Your task to perform on an android device: What's the news in Jamaica? Image 0: 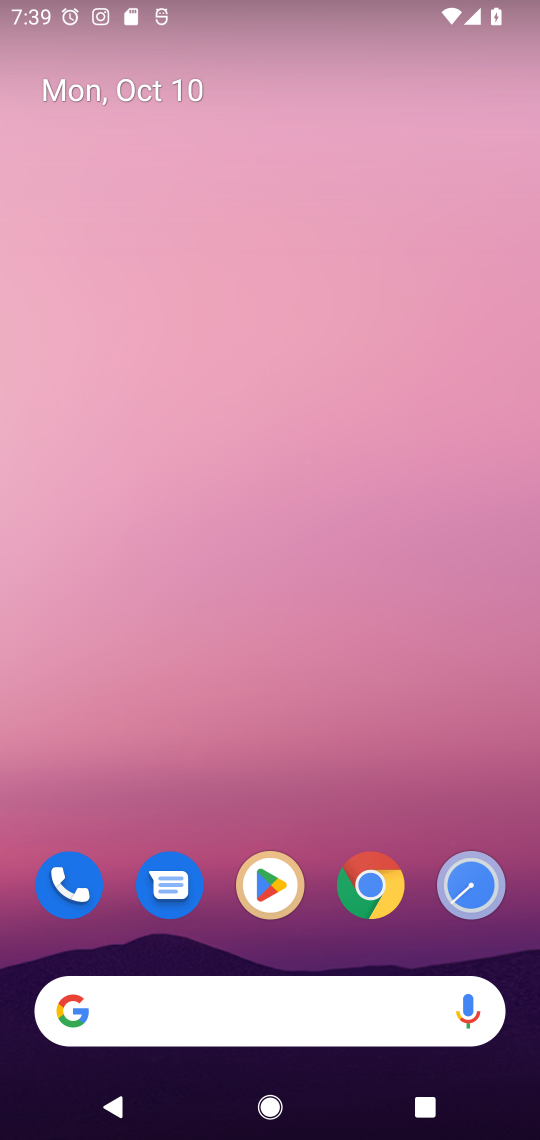
Step 0: click (381, 893)
Your task to perform on an android device: What's the news in Jamaica? Image 1: 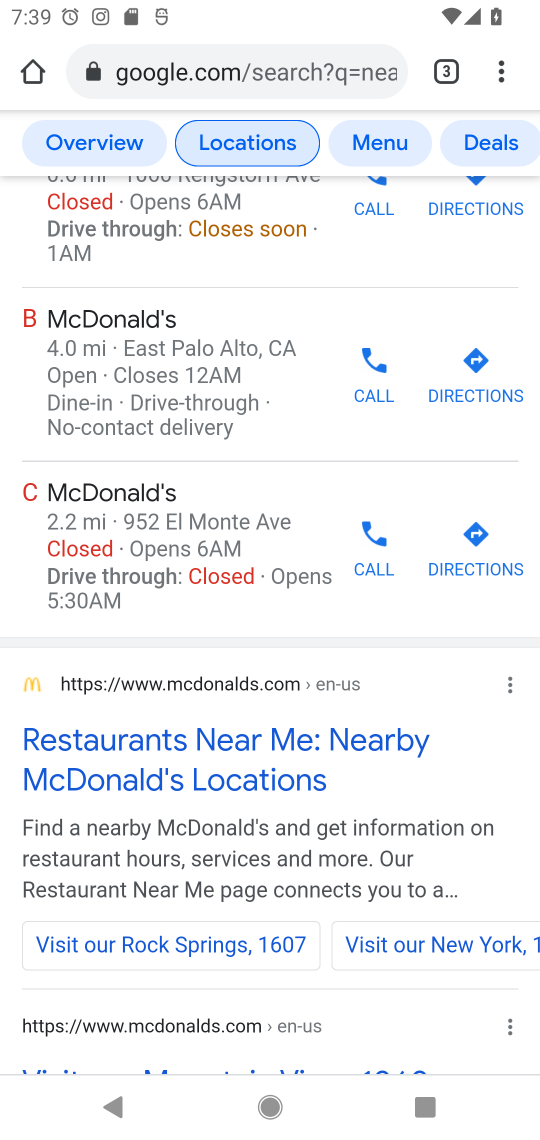
Step 1: click (253, 75)
Your task to perform on an android device: What's the news in Jamaica? Image 2: 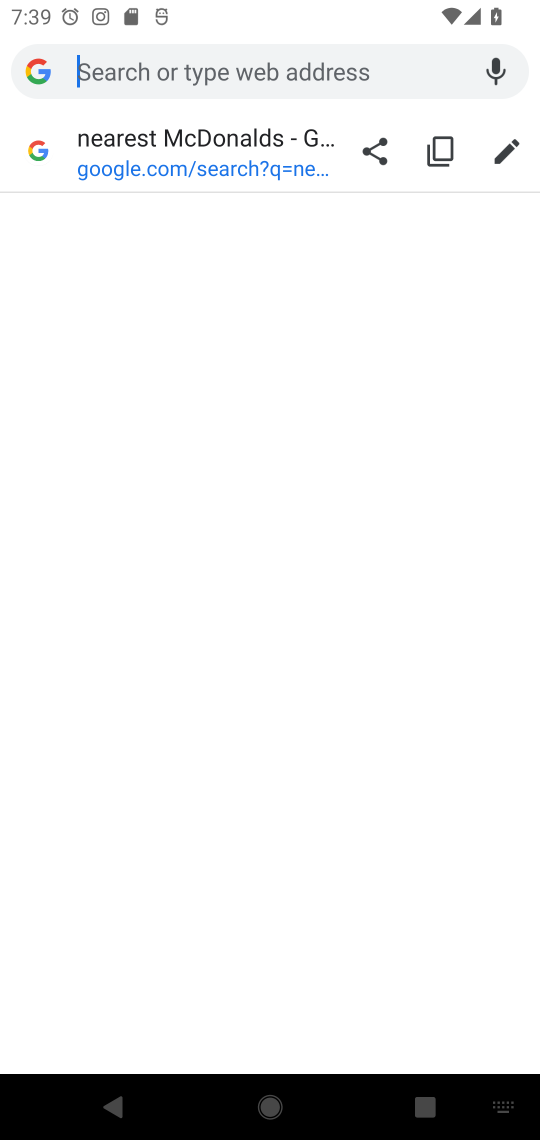
Step 2: type "Jamaica"
Your task to perform on an android device: What's the news in Jamaica? Image 3: 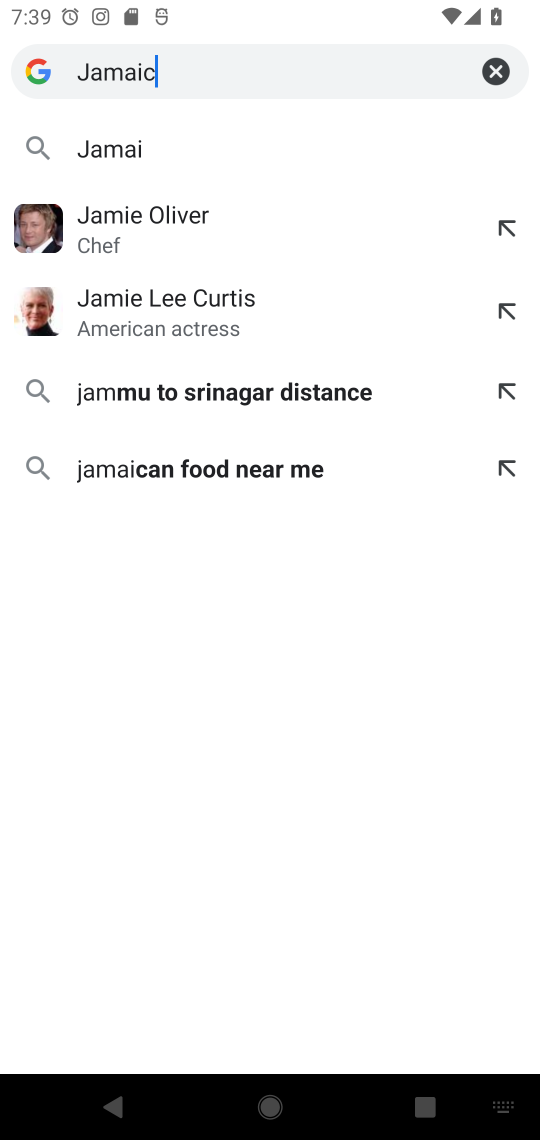
Step 3: type ""
Your task to perform on an android device: What's the news in Jamaica? Image 4: 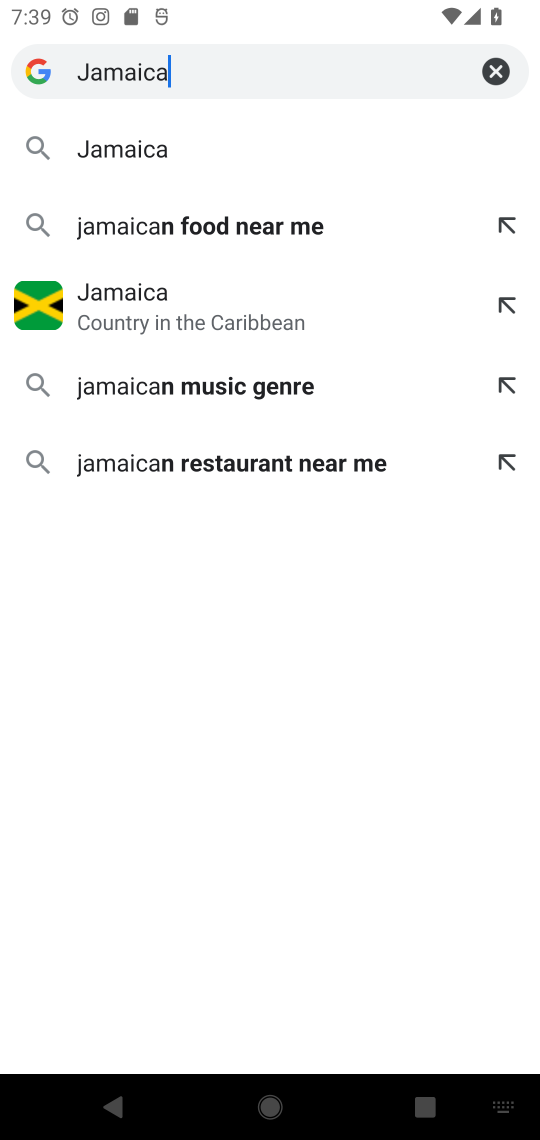
Step 4: click (138, 147)
Your task to perform on an android device: What's the news in Jamaica? Image 5: 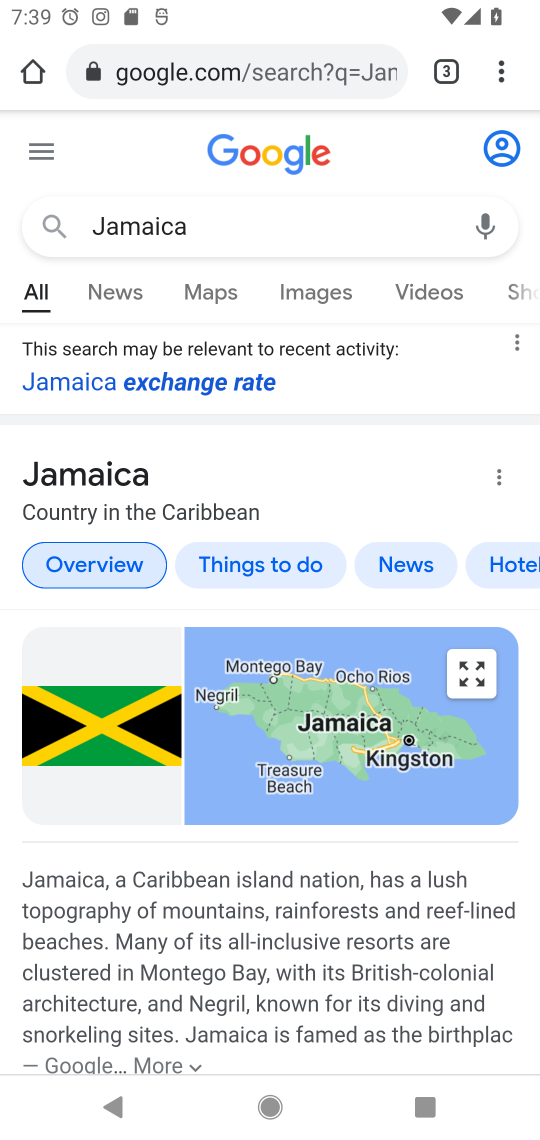
Step 5: click (418, 566)
Your task to perform on an android device: What's the news in Jamaica? Image 6: 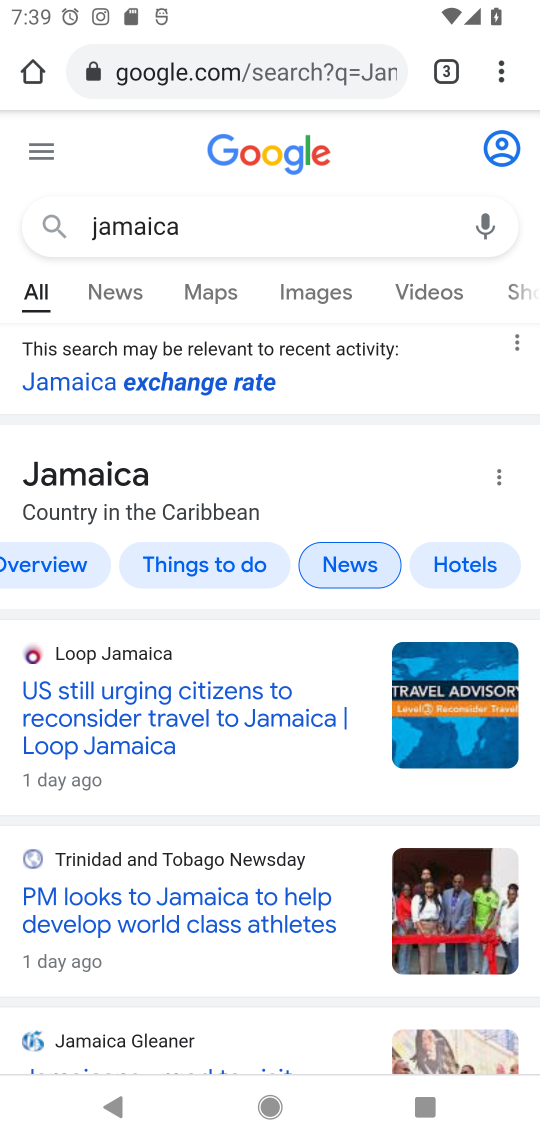
Step 6: drag from (197, 769) to (139, 289)
Your task to perform on an android device: What's the news in Jamaica? Image 7: 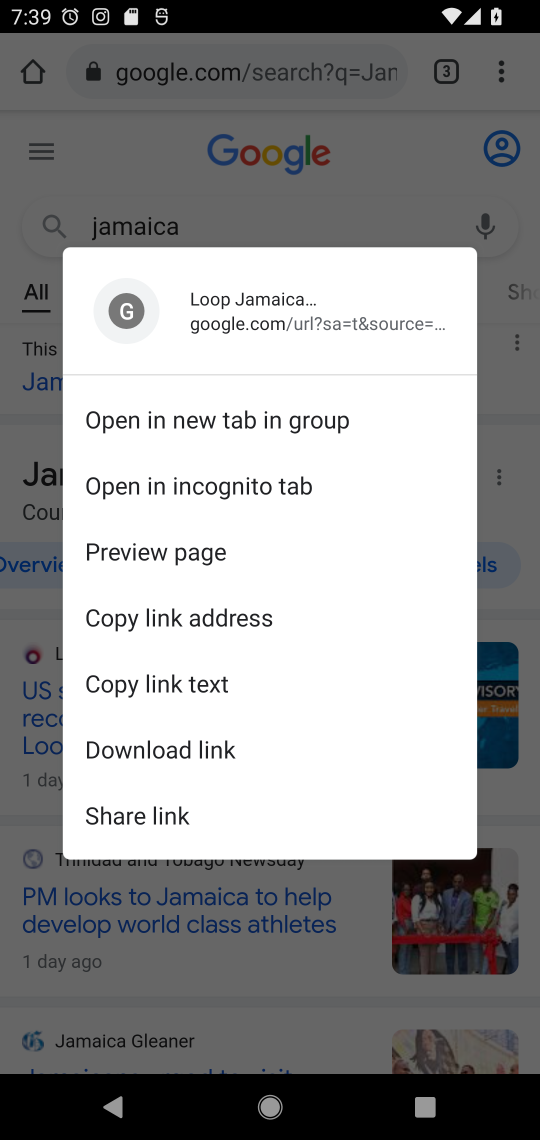
Step 7: click (220, 191)
Your task to perform on an android device: What's the news in Jamaica? Image 8: 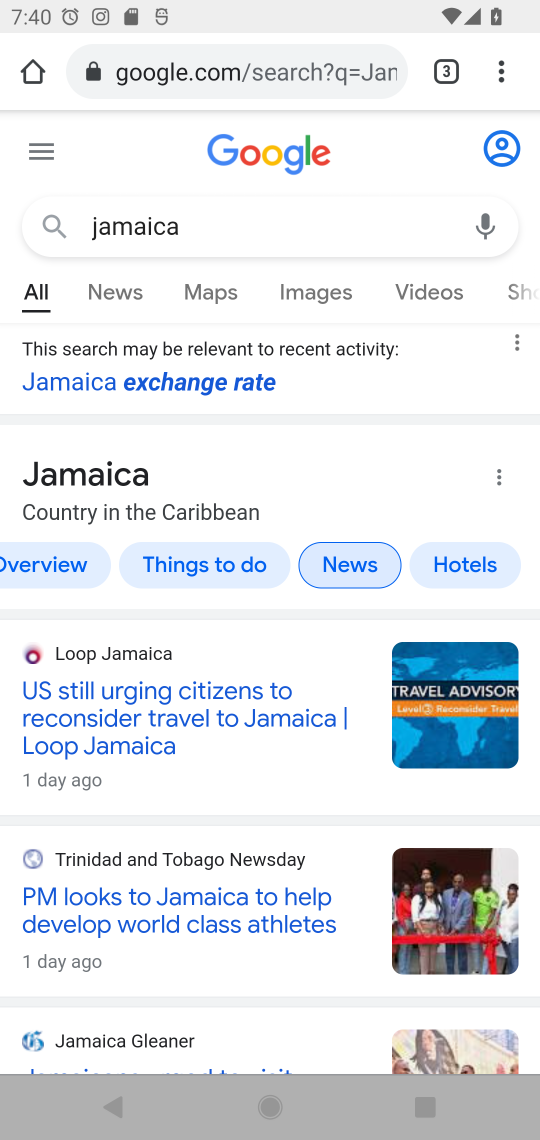
Step 8: task complete